Your task to perform on an android device: turn off notifications settings in the gmail app Image 0: 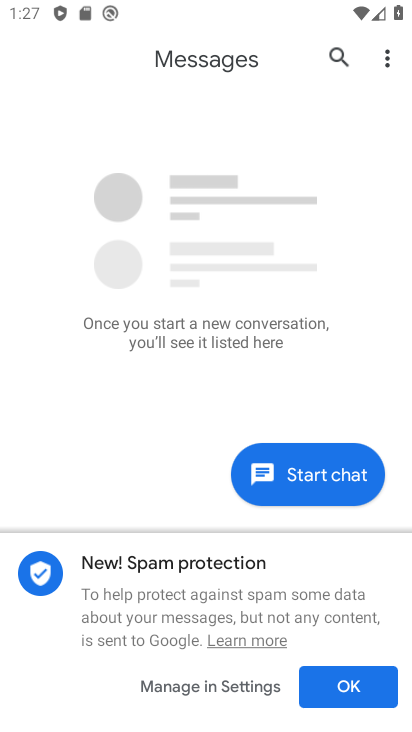
Step 0: press home button
Your task to perform on an android device: turn off notifications settings in the gmail app Image 1: 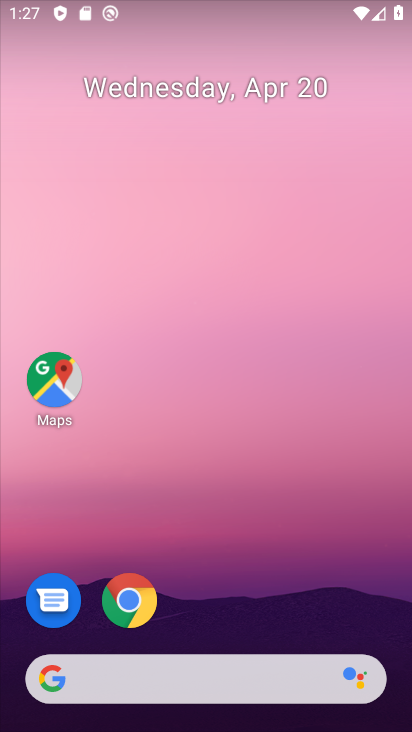
Step 1: drag from (244, 397) to (248, 57)
Your task to perform on an android device: turn off notifications settings in the gmail app Image 2: 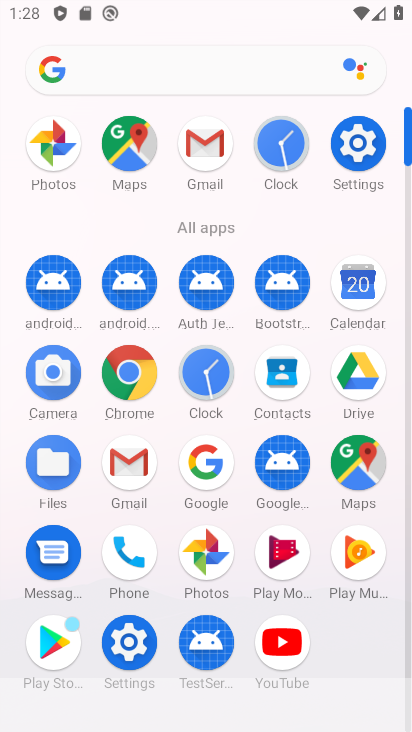
Step 2: click (128, 465)
Your task to perform on an android device: turn off notifications settings in the gmail app Image 3: 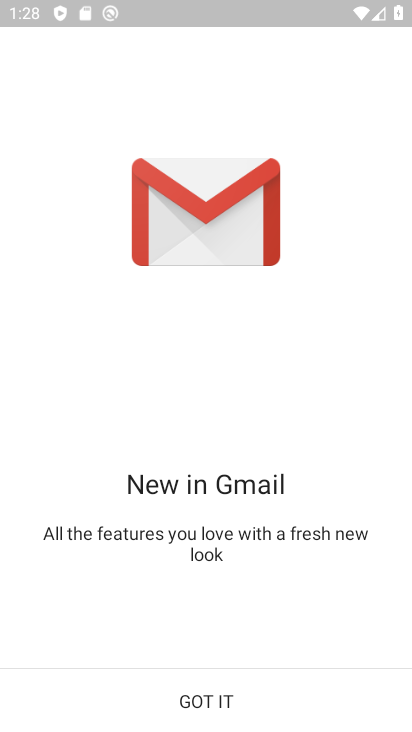
Step 3: click (212, 699)
Your task to perform on an android device: turn off notifications settings in the gmail app Image 4: 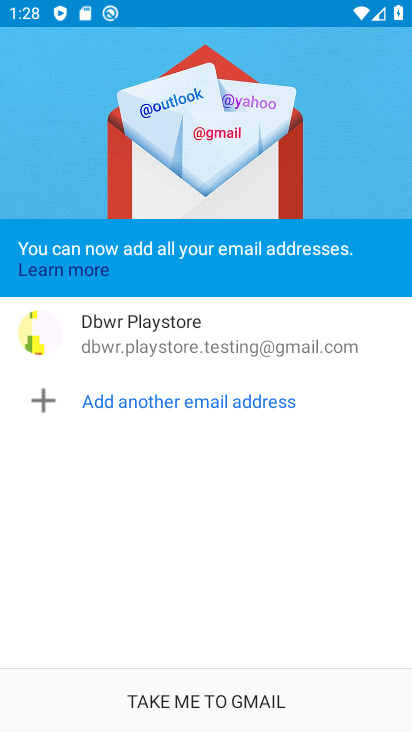
Step 4: click (213, 695)
Your task to perform on an android device: turn off notifications settings in the gmail app Image 5: 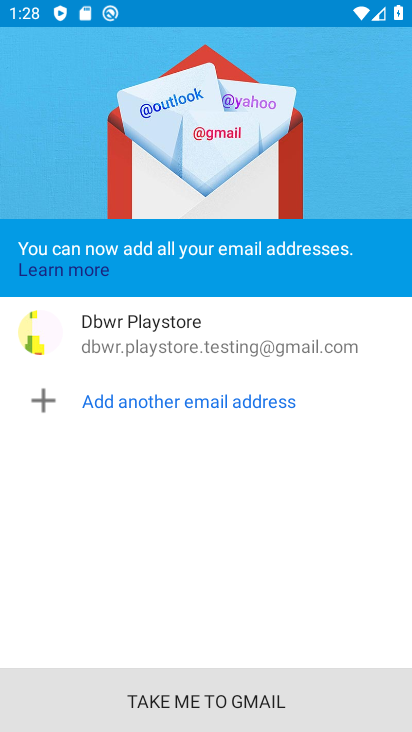
Step 5: click (214, 696)
Your task to perform on an android device: turn off notifications settings in the gmail app Image 6: 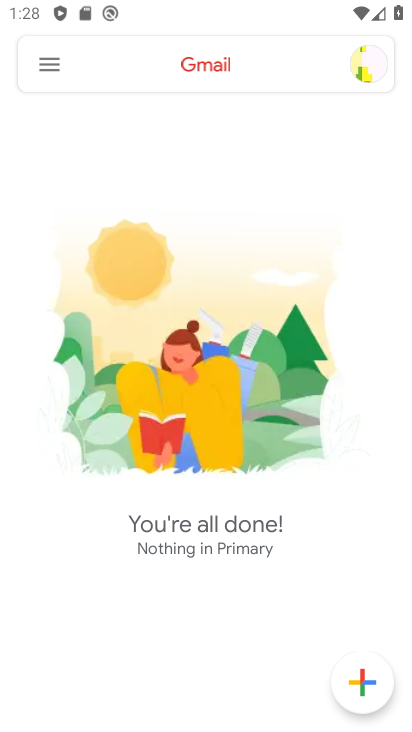
Step 6: click (45, 60)
Your task to perform on an android device: turn off notifications settings in the gmail app Image 7: 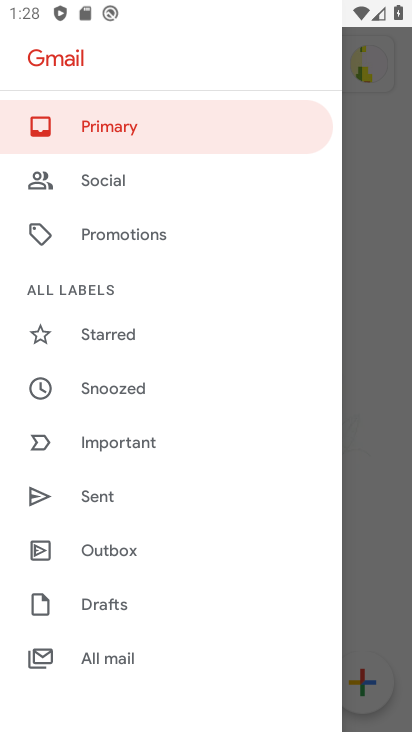
Step 7: drag from (148, 487) to (189, 82)
Your task to perform on an android device: turn off notifications settings in the gmail app Image 8: 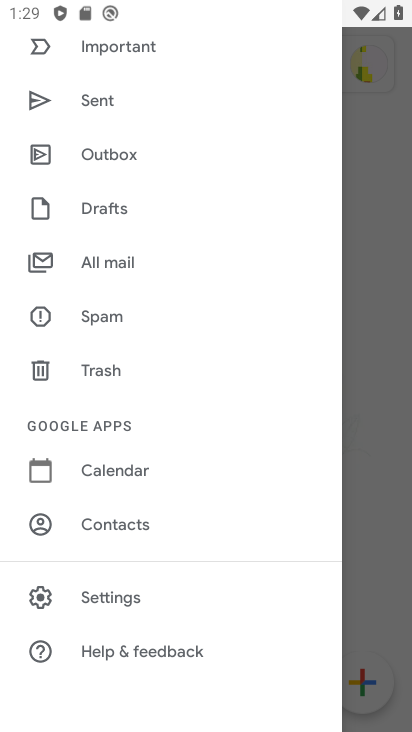
Step 8: click (124, 592)
Your task to perform on an android device: turn off notifications settings in the gmail app Image 9: 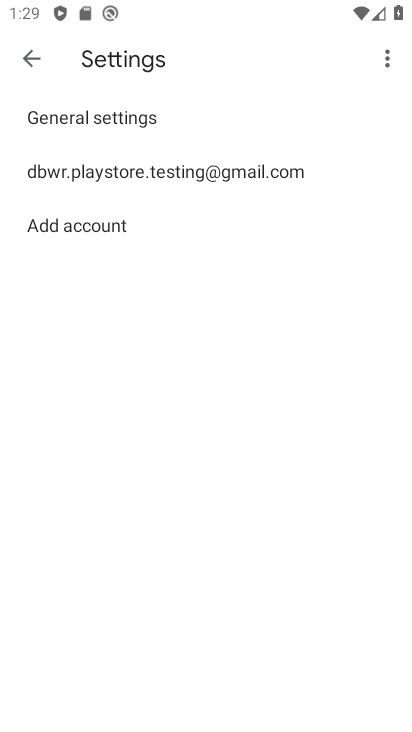
Step 9: click (151, 180)
Your task to perform on an android device: turn off notifications settings in the gmail app Image 10: 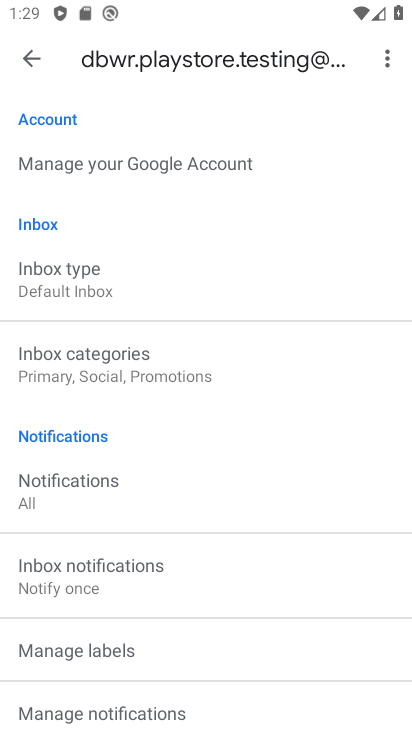
Step 10: drag from (117, 605) to (221, 156)
Your task to perform on an android device: turn off notifications settings in the gmail app Image 11: 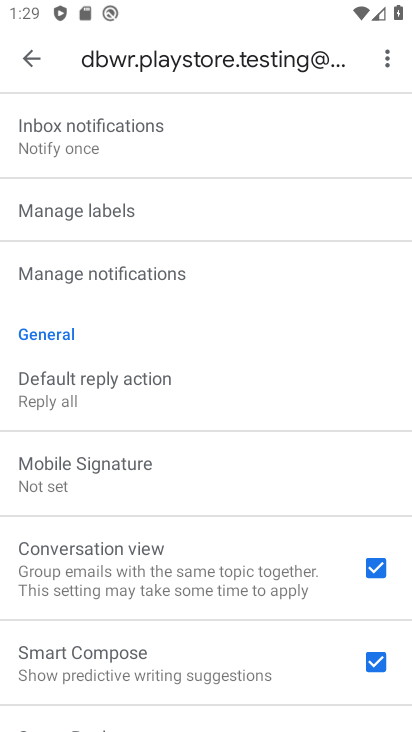
Step 11: click (111, 278)
Your task to perform on an android device: turn off notifications settings in the gmail app Image 12: 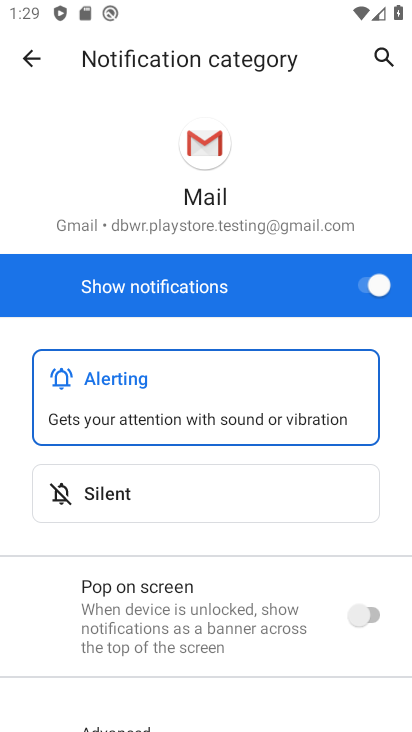
Step 12: click (377, 290)
Your task to perform on an android device: turn off notifications settings in the gmail app Image 13: 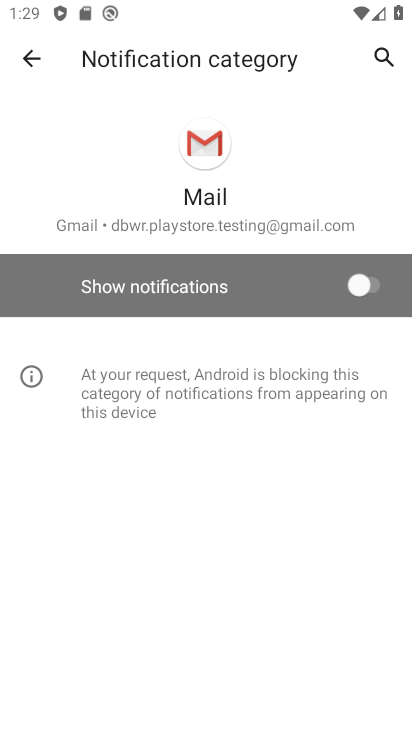
Step 13: task complete